Your task to perform on an android device: check storage Image 0: 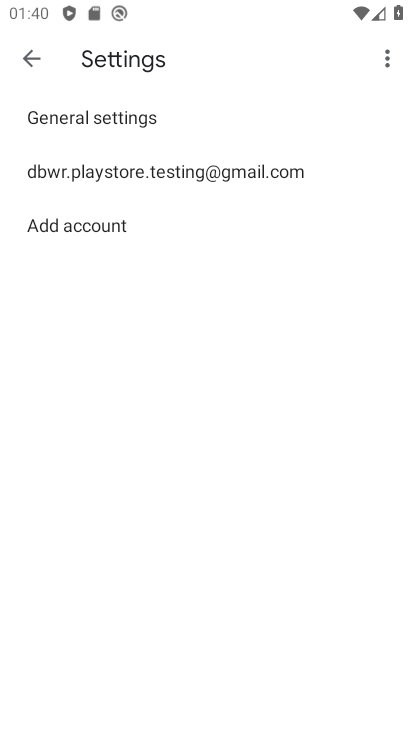
Step 0: press home button
Your task to perform on an android device: check storage Image 1: 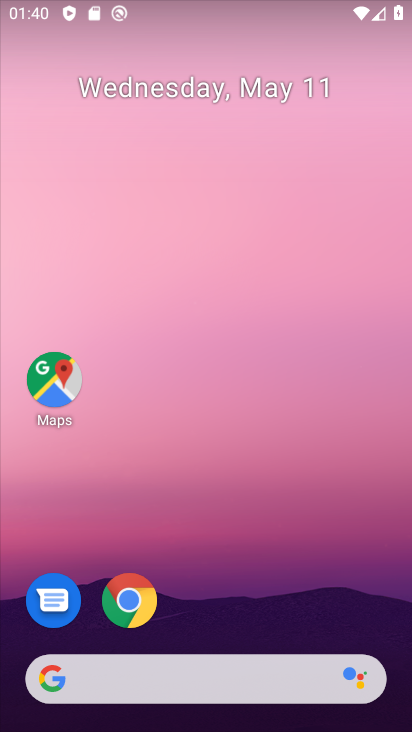
Step 1: drag from (264, 446) to (284, 173)
Your task to perform on an android device: check storage Image 2: 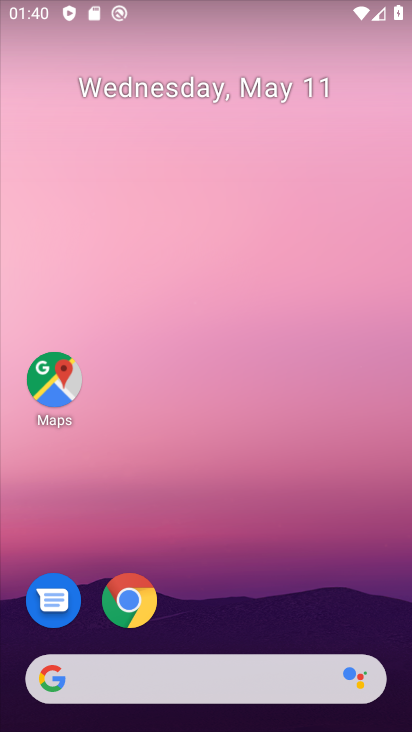
Step 2: drag from (253, 566) to (274, 179)
Your task to perform on an android device: check storage Image 3: 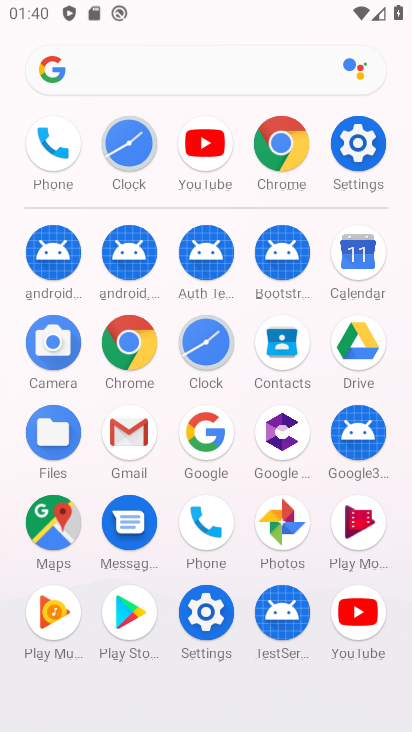
Step 3: click (353, 133)
Your task to perform on an android device: check storage Image 4: 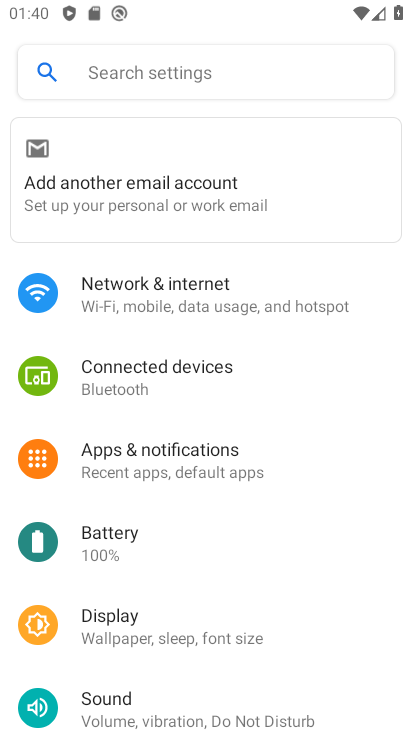
Step 4: drag from (223, 621) to (266, 344)
Your task to perform on an android device: check storage Image 5: 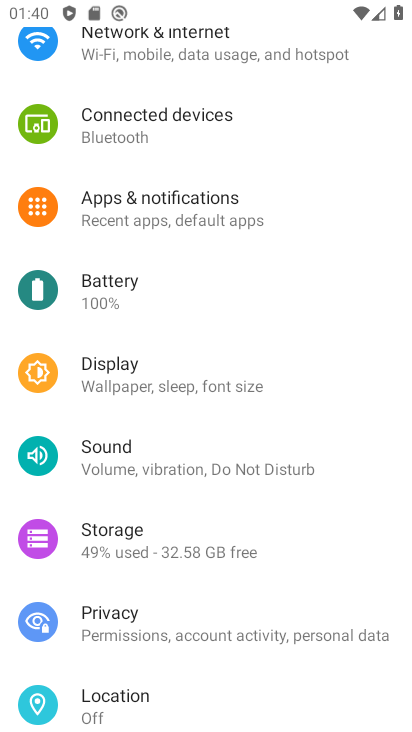
Step 5: click (168, 543)
Your task to perform on an android device: check storage Image 6: 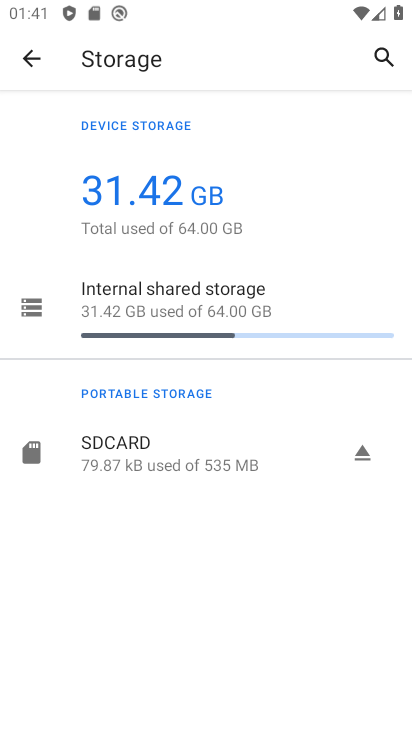
Step 6: task complete